Your task to perform on an android device: make emails show in primary in the gmail app Image 0: 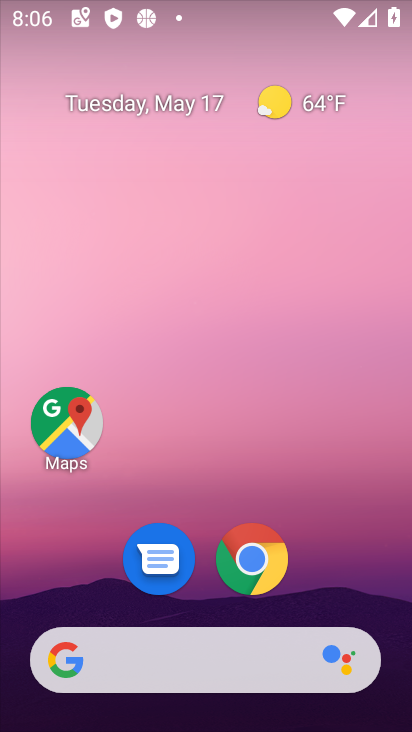
Step 0: drag from (201, 619) to (116, 27)
Your task to perform on an android device: make emails show in primary in the gmail app Image 1: 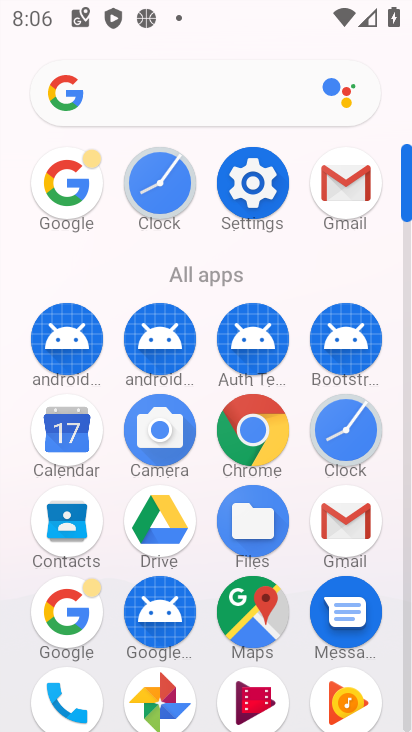
Step 1: click (358, 526)
Your task to perform on an android device: make emails show in primary in the gmail app Image 2: 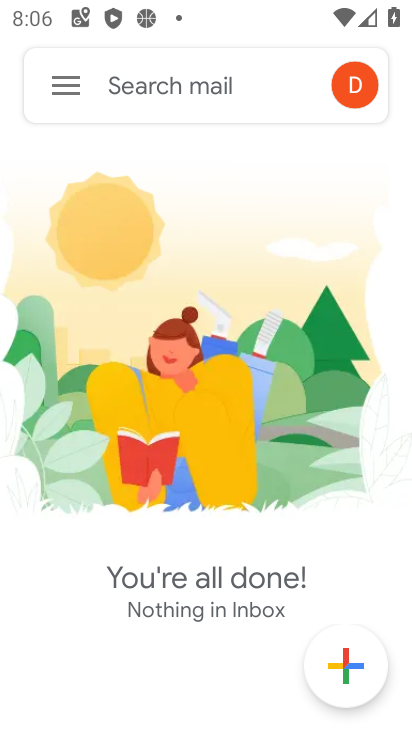
Step 2: click (60, 99)
Your task to perform on an android device: make emails show in primary in the gmail app Image 3: 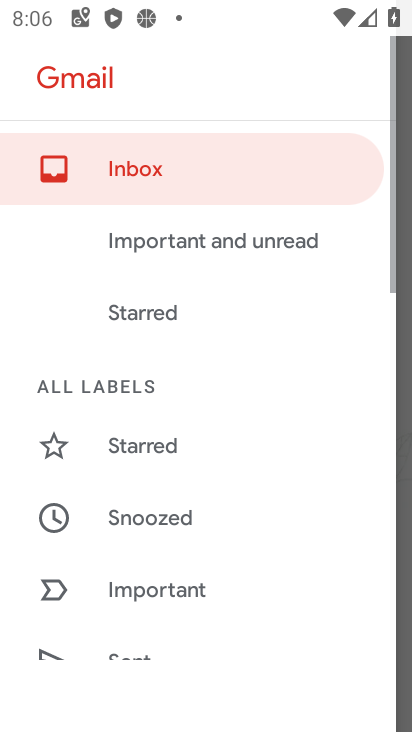
Step 3: drag from (104, 219) to (76, 43)
Your task to perform on an android device: make emails show in primary in the gmail app Image 4: 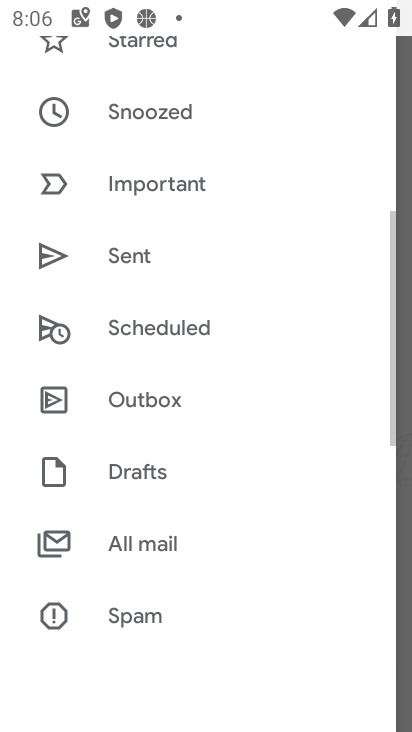
Step 4: drag from (126, 557) to (64, 159)
Your task to perform on an android device: make emails show in primary in the gmail app Image 5: 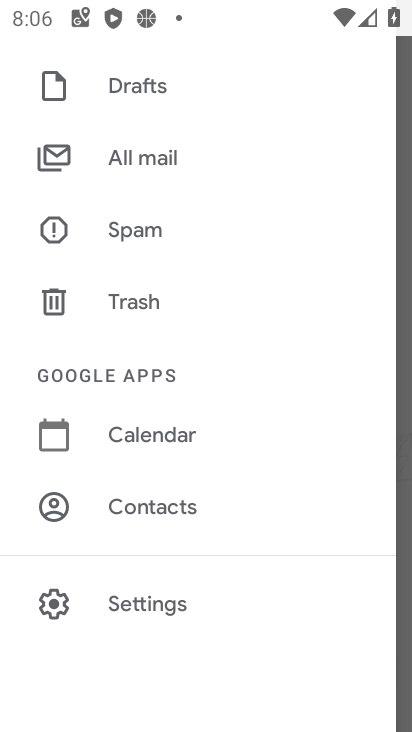
Step 5: click (110, 599)
Your task to perform on an android device: make emails show in primary in the gmail app Image 6: 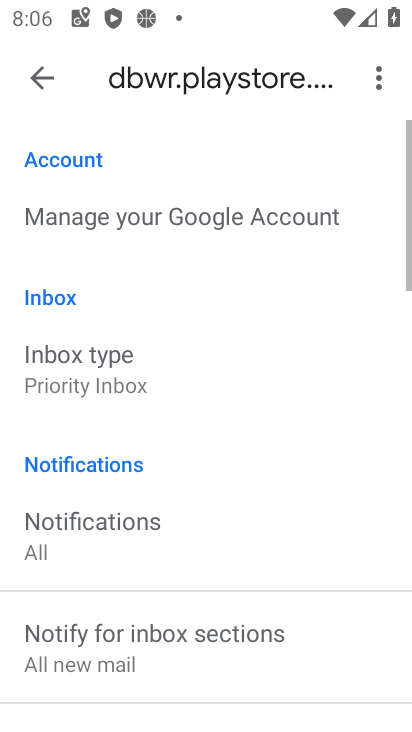
Step 6: click (137, 383)
Your task to perform on an android device: make emails show in primary in the gmail app Image 7: 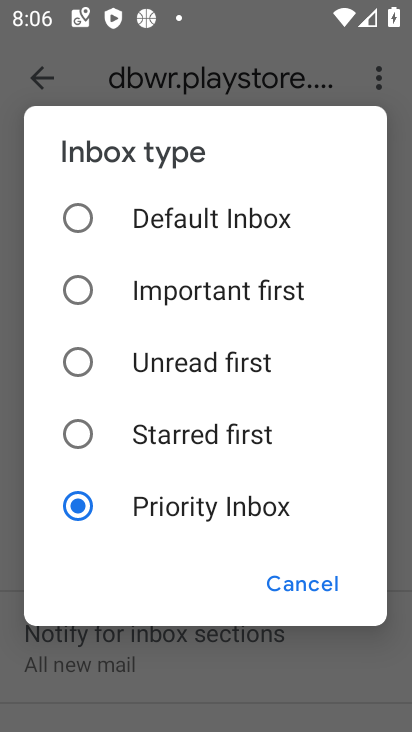
Step 7: click (116, 229)
Your task to perform on an android device: make emails show in primary in the gmail app Image 8: 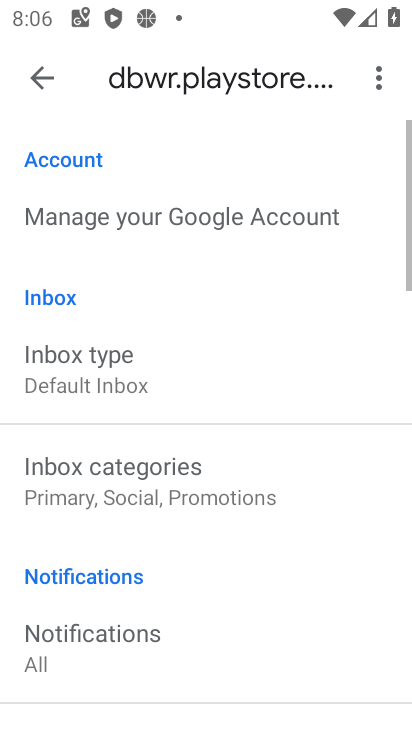
Step 8: click (108, 359)
Your task to perform on an android device: make emails show in primary in the gmail app Image 9: 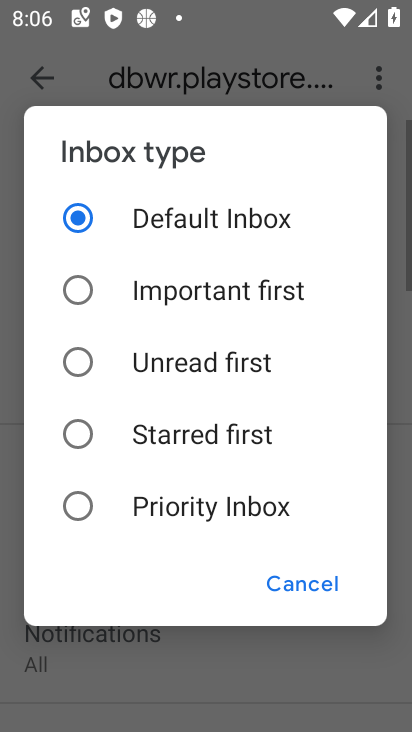
Step 9: click (295, 589)
Your task to perform on an android device: make emails show in primary in the gmail app Image 10: 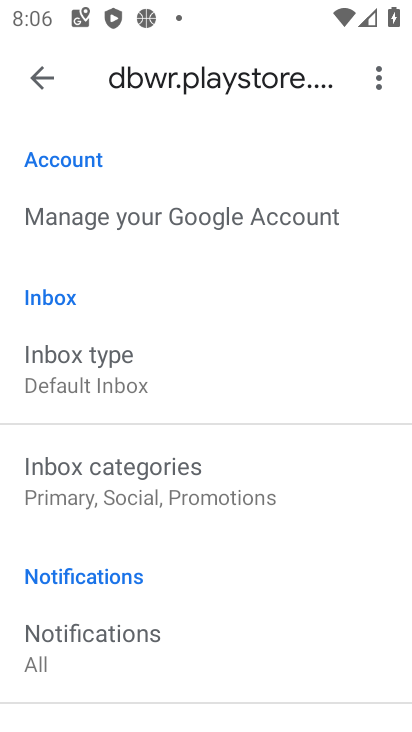
Step 10: click (42, 97)
Your task to perform on an android device: make emails show in primary in the gmail app Image 11: 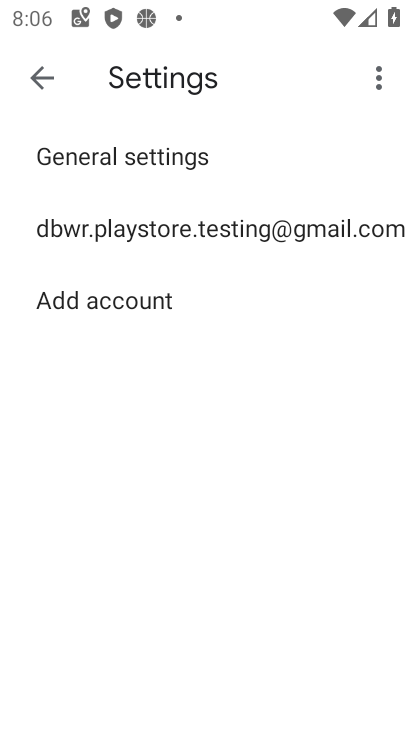
Step 11: click (41, 96)
Your task to perform on an android device: make emails show in primary in the gmail app Image 12: 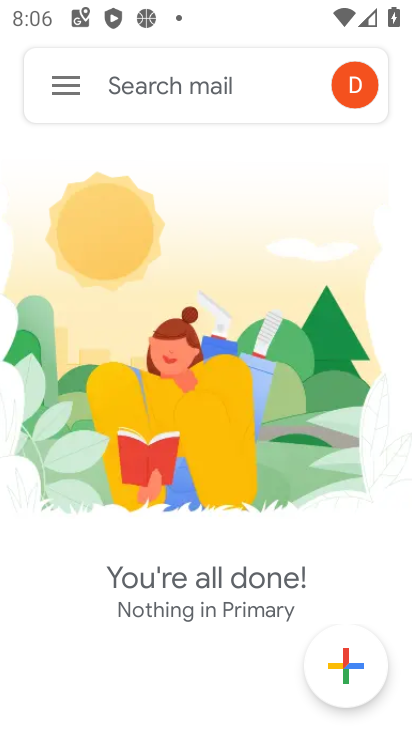
Step 12: click (40, 100)
Your task to perform on an android device: make emails show in primary in the gmail app Image 13: 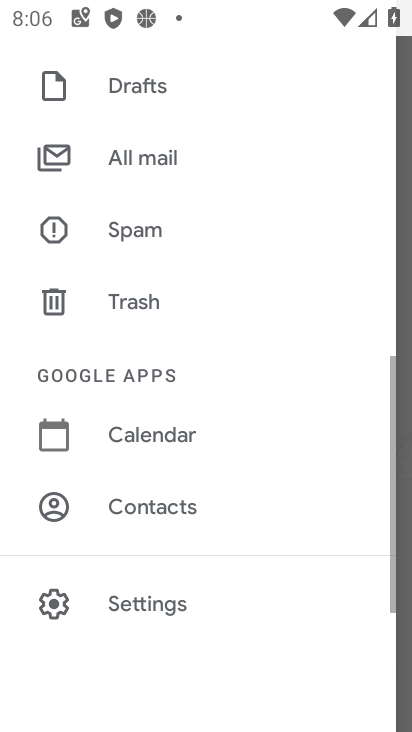
Step 13: drag from (79, 145) to (129, 644)
Your task to perform on an android device: make emails show in primary in the gmail app Image 14: 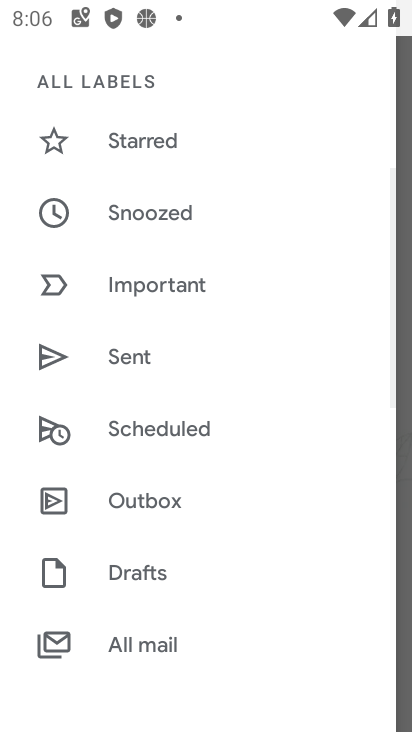
Step 14: drag from (80, 171) to (91, 701)
Your task to perform on an android device: make emails show in primary in the gmail app Image 15: 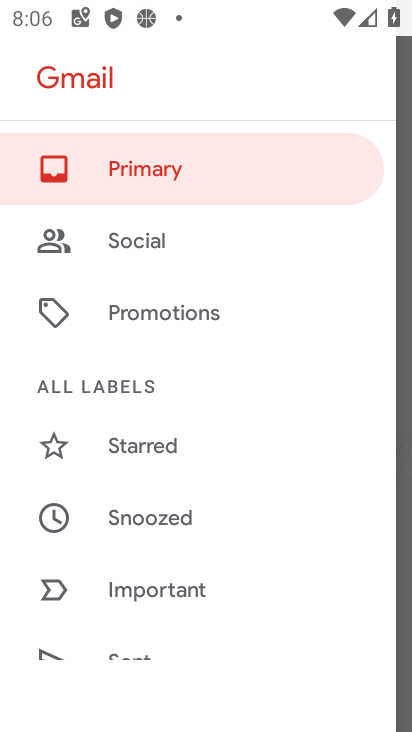
Step 15: click (96, 170)
Your task to perform on an android device: make emails show in primary in the gmail app Image 16: 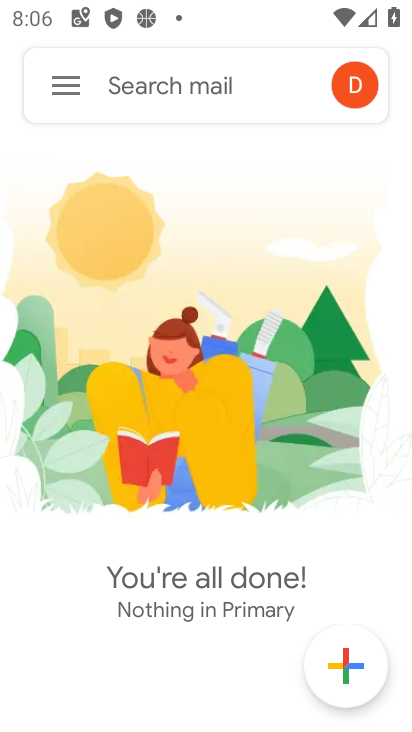
Step 16: task complete